Your task to perform on an android device: set the timer Image 0: 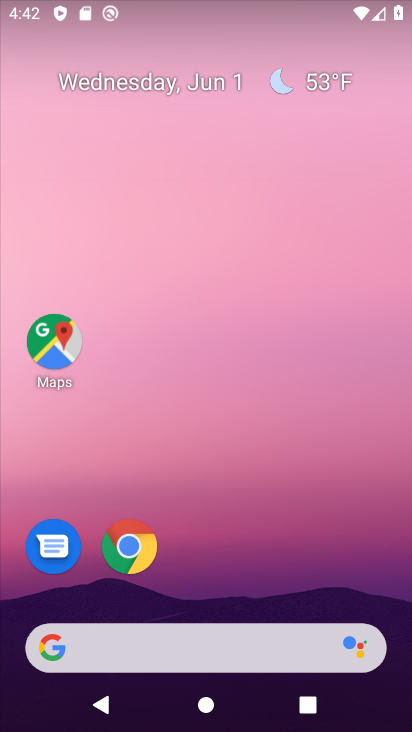
Step 0: drag from (362, 540) to (256, 15)
Your task to perform on an android device: set the timer Image 1: 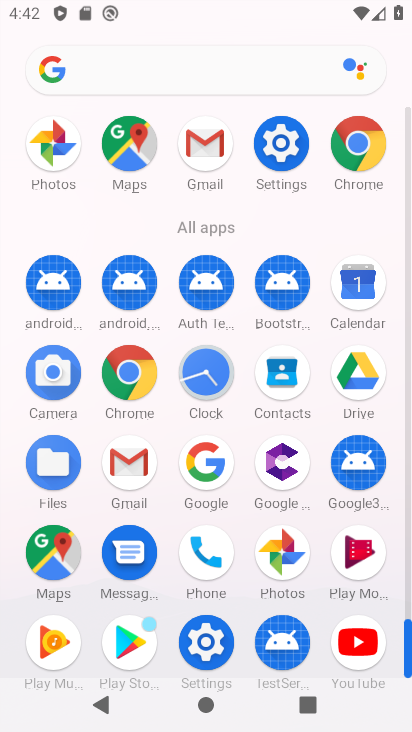
Step 1: drag from (12, 554) to (13, 231)
Your task to perform on an android device: set the timer Image 2: 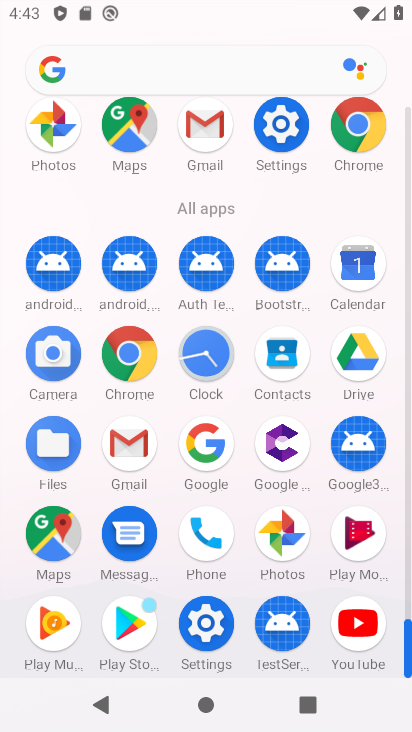
Step 2: click (206, 350)
Your task to perform on an android device: set the timer Image 3: 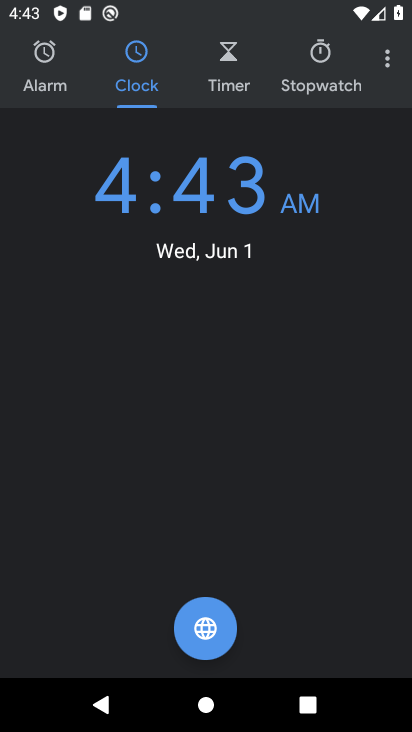
Step 3: click (230, 67)
Your task to perform on an android device: set the timer Image 4: 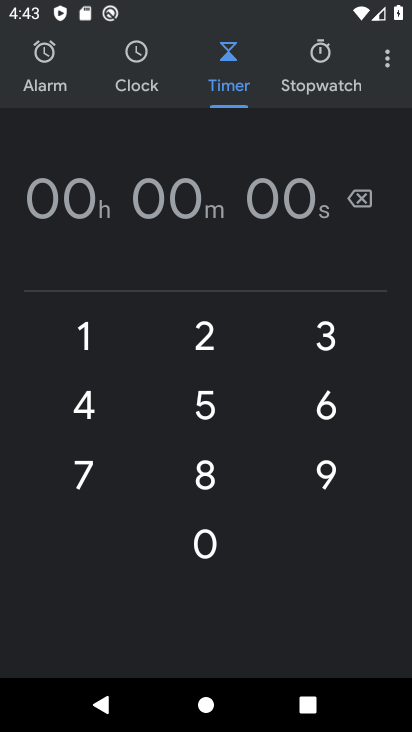
Step 4: click (191, 326)
Your task to perform on an android device: set the timer Image 5: 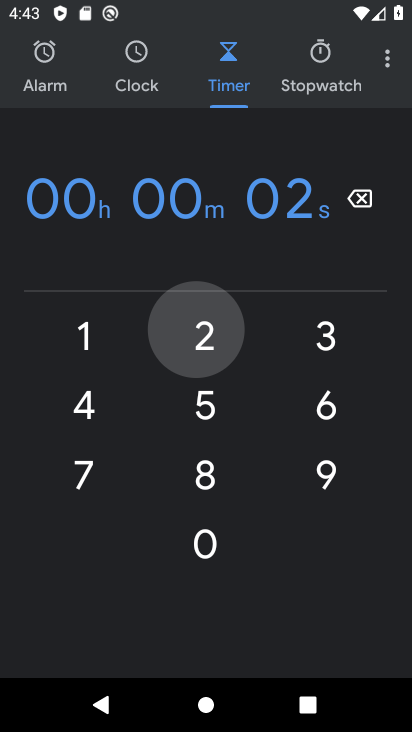
Step 5: click (200, 392)
Your task to perform on an android device: set the timer Image 6: 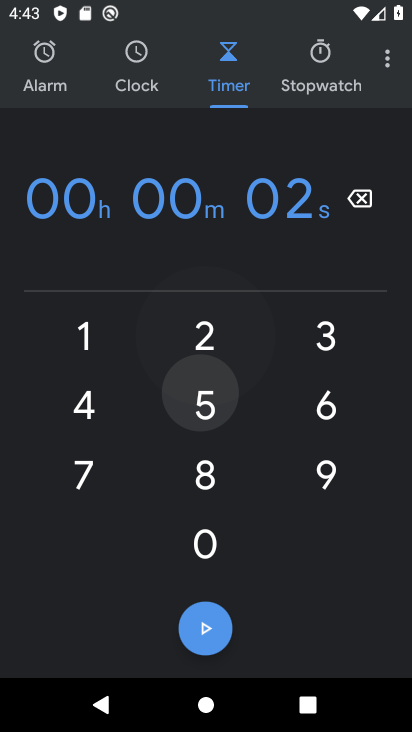
Step 6: click (191, 459)
Your task to perform on an android device: set the timer Image 7: 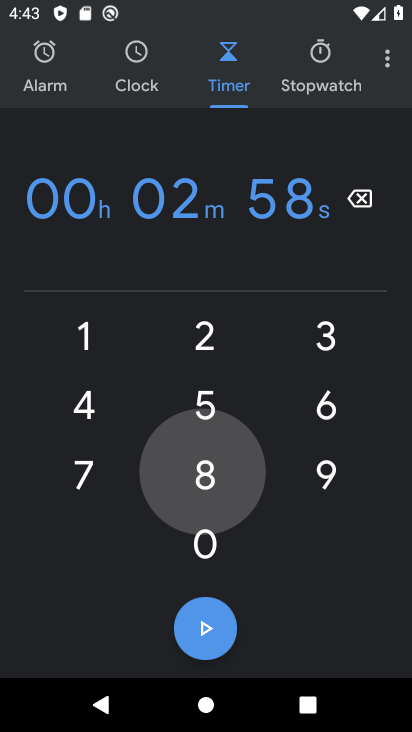
Step 7: click (203, 516)
Your task to perform on an android device: set the timer Image 8: 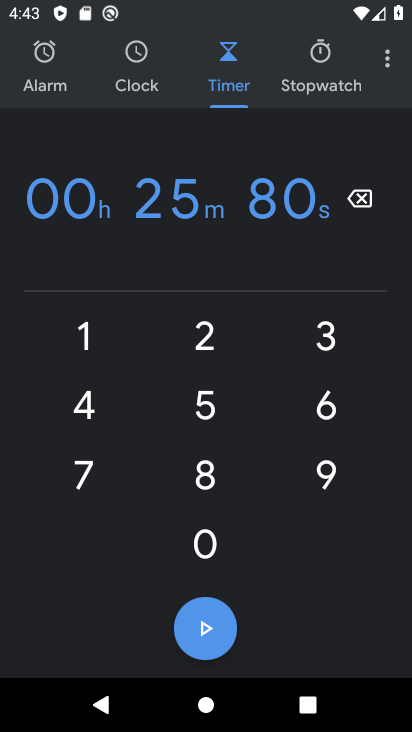
Step 8: click (214, 615)
Your task to perform on an android device: set the timer Image 9: 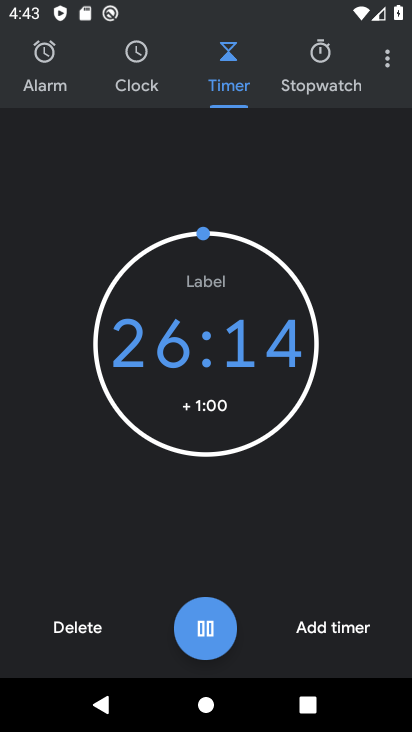
Step 9: task complete